Your task to perform on an android device: How much does the Sony TV cost? Image 0: 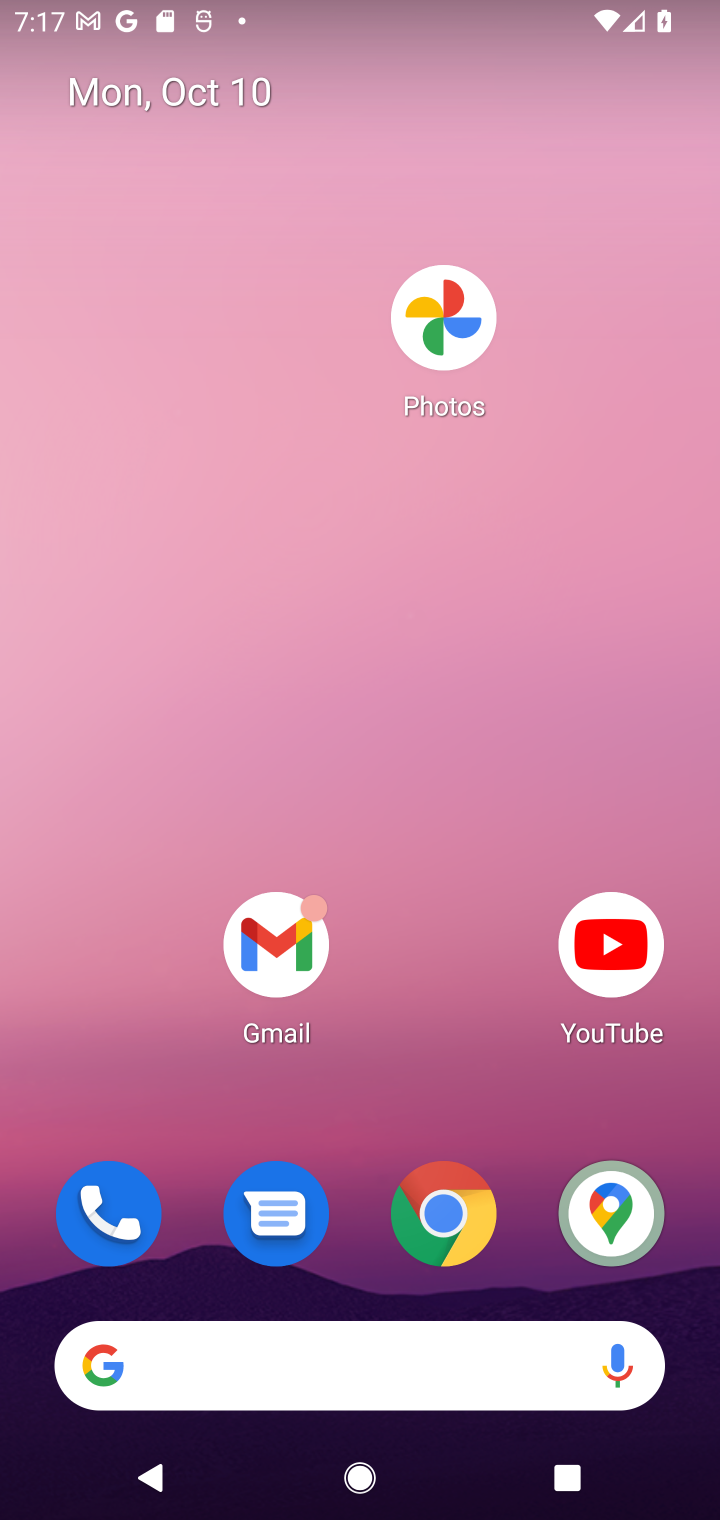
Step 0: click (323, 1360)
Your task to perform on an android device: How much does the Sony TV cost? Image 1: 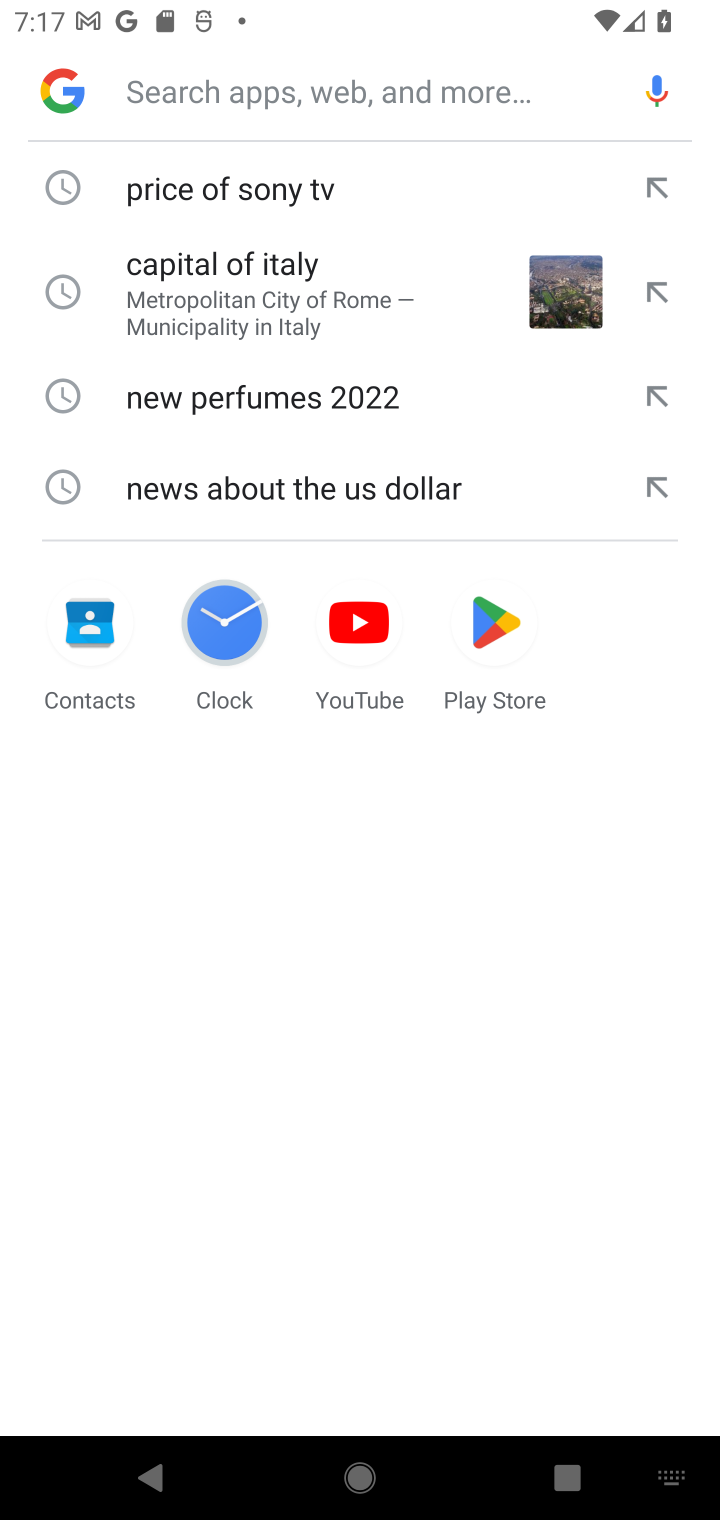
Step 1: type "the Sony TV cost"
Your task to perform on an android device: How much does the Sony TV cost? Image 2: 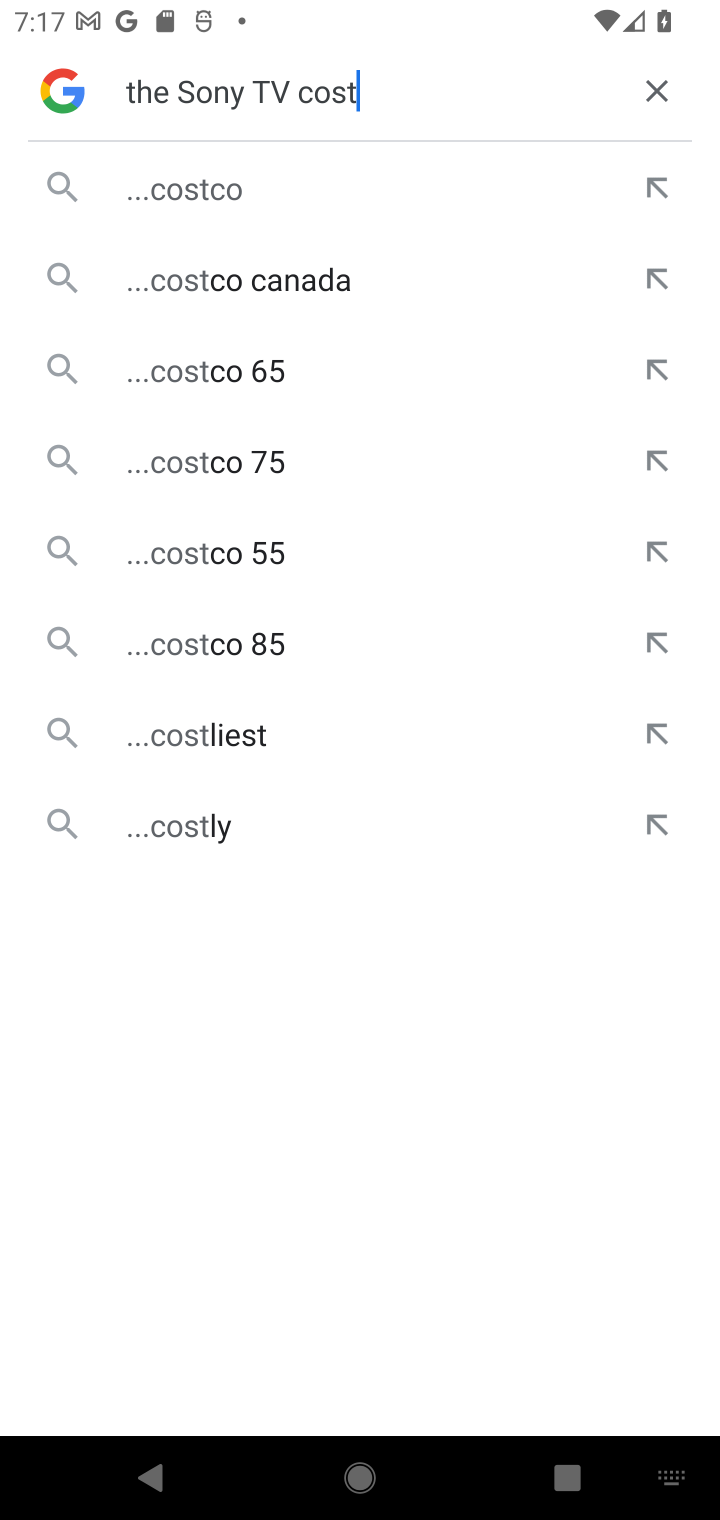
Step 2: click (655, 70)
Your task to perform on an android device: How much does the Sony TV cost? Image 3: 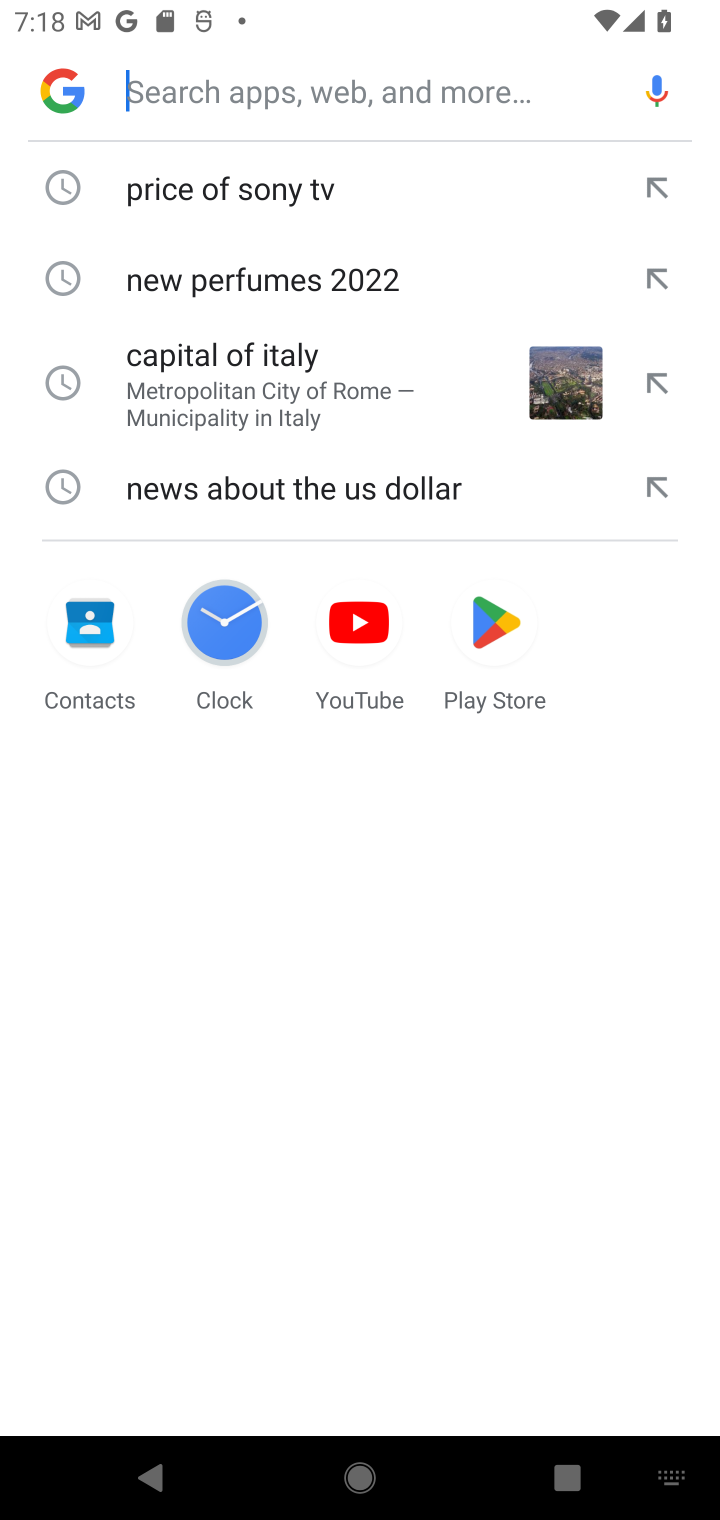
Step 3: type "Sony TV cost"
Your task to perform on an android device: How much does the Sony TV cost? Image 4: 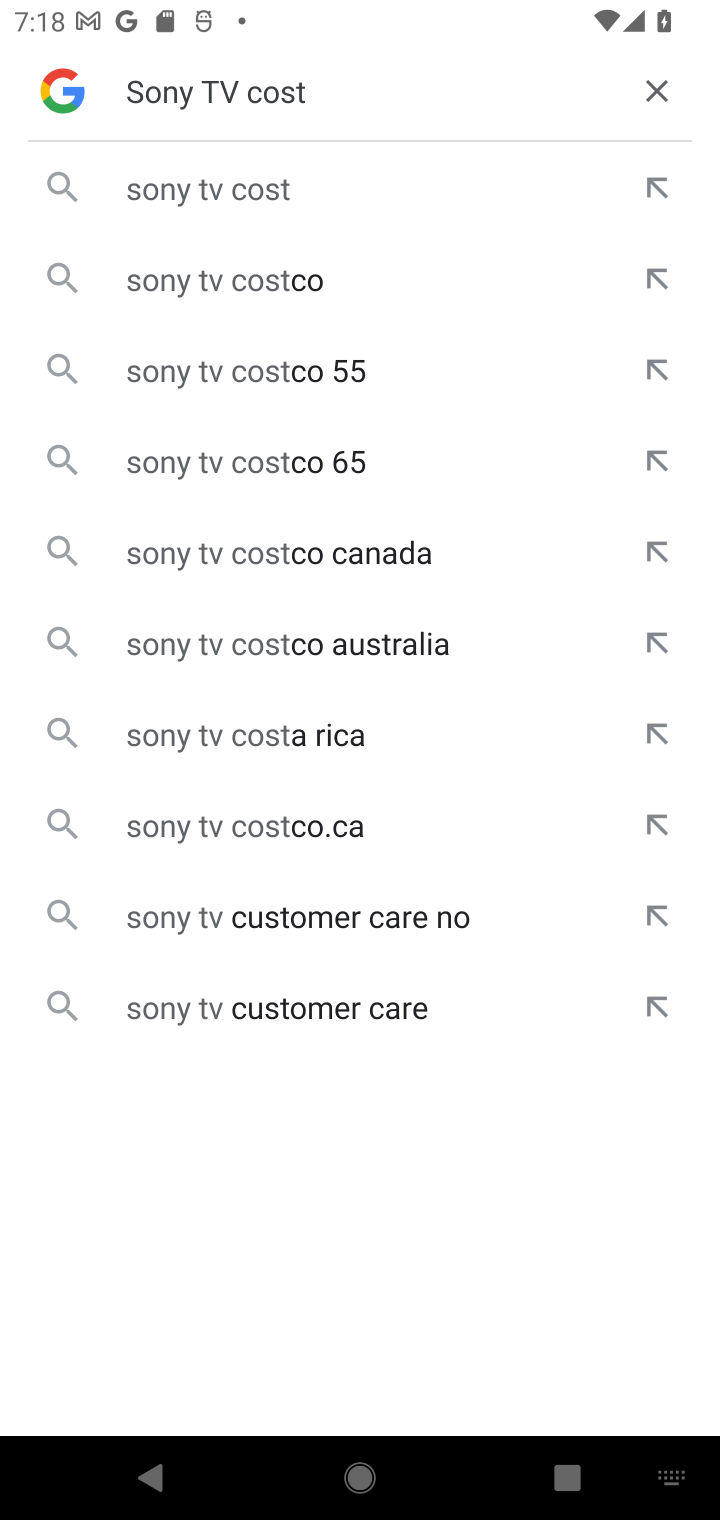
Step 4: click (262, 173)
Your task to perform on an android device: How much does the Sony TV cost? Image 5: 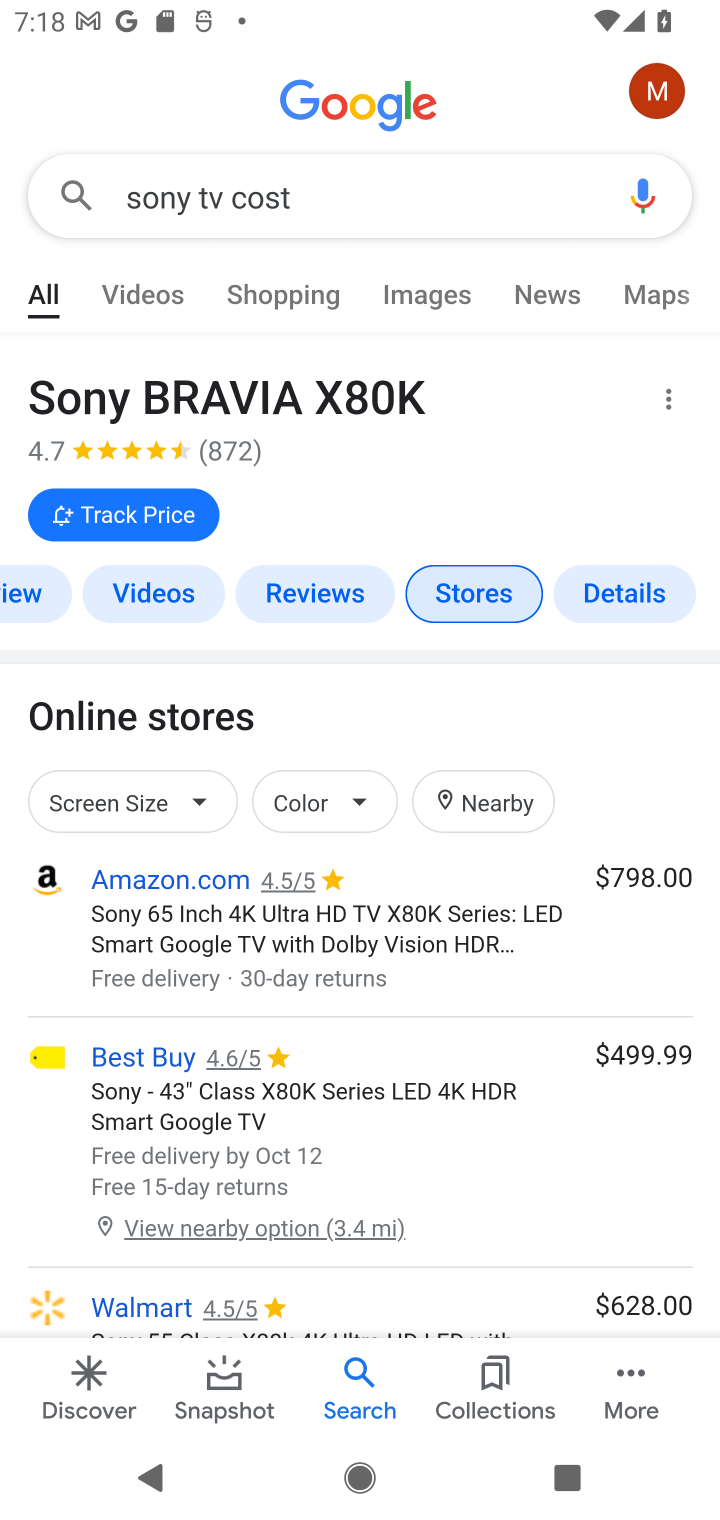
Step 5: task complete